Your task to perform on an android device: Go to wifi settings Image 0: 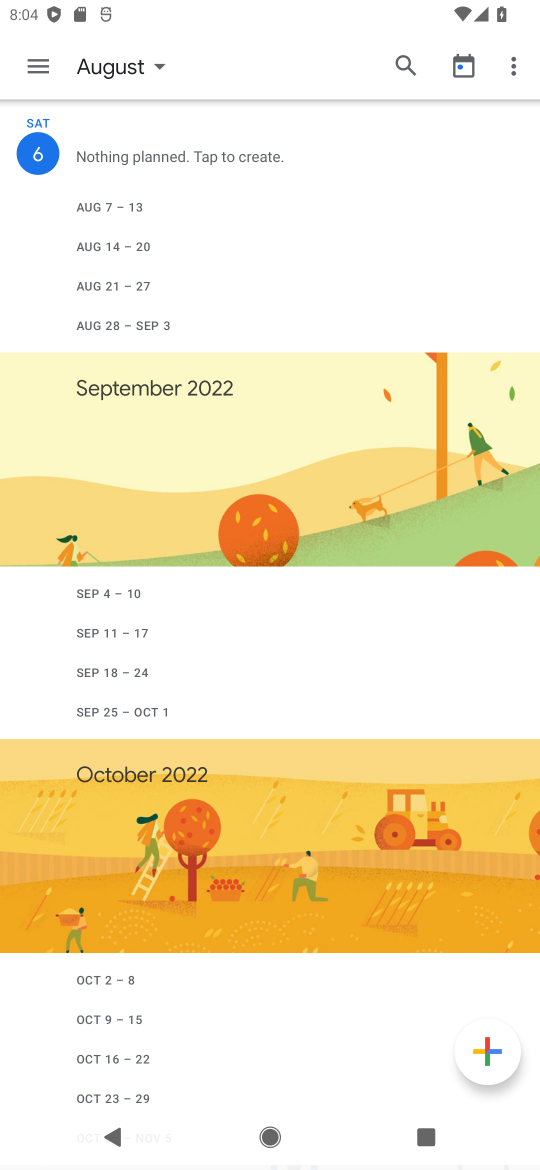
Step 0: press home button
Your task to perform on an android device: Go to wifi settings Image 1: 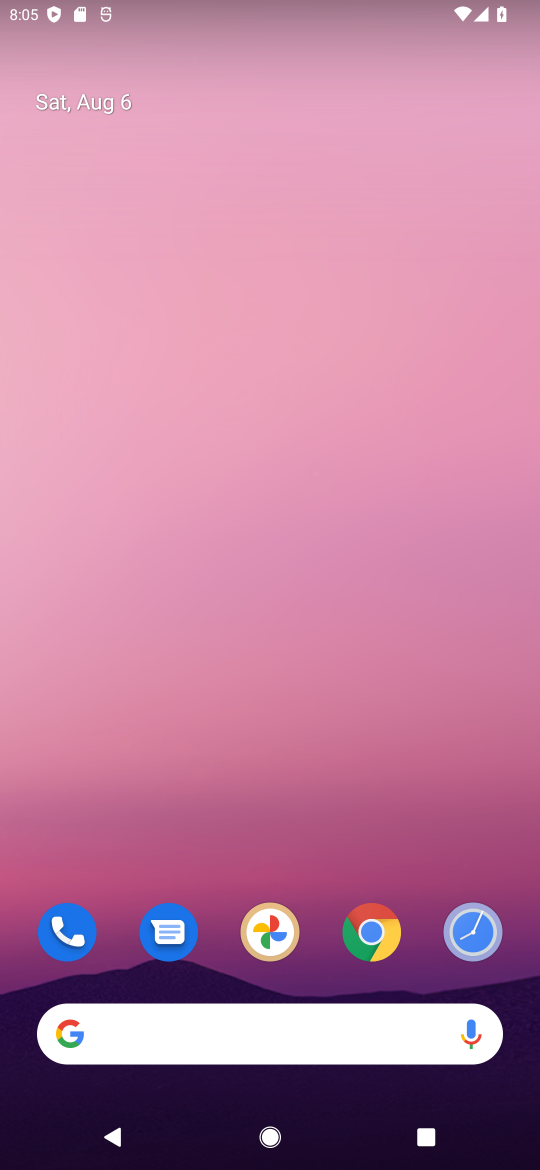
Step 1: drag from (292, 1037) to (463, 169)
Your task to perform on an android device: Go to wifi settings Image 2: 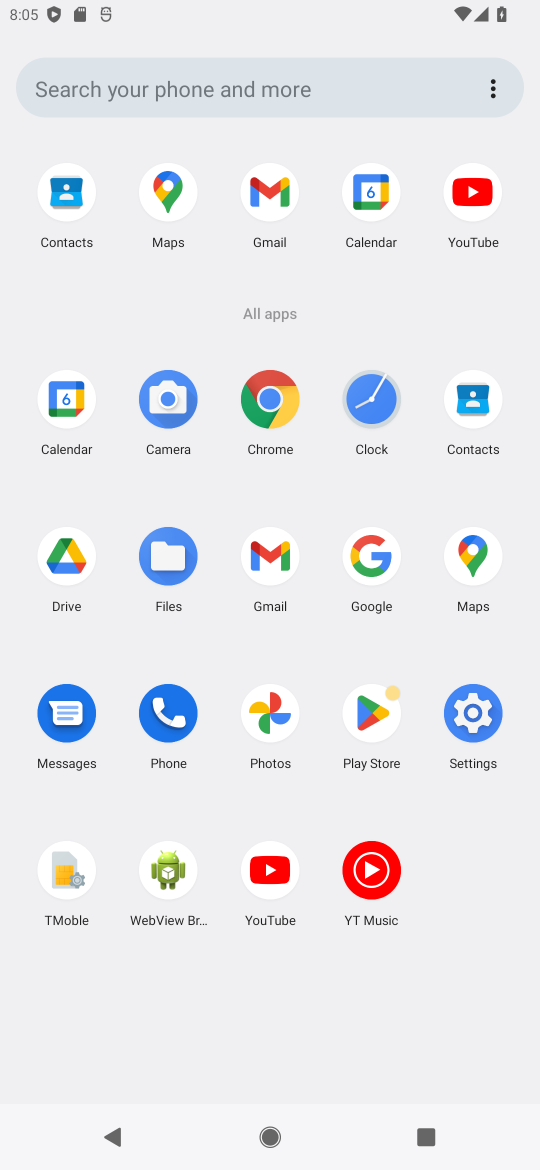
Step 2: click (474, 715)
Your task to perform on an android device: Go to wifi settings Image 3: 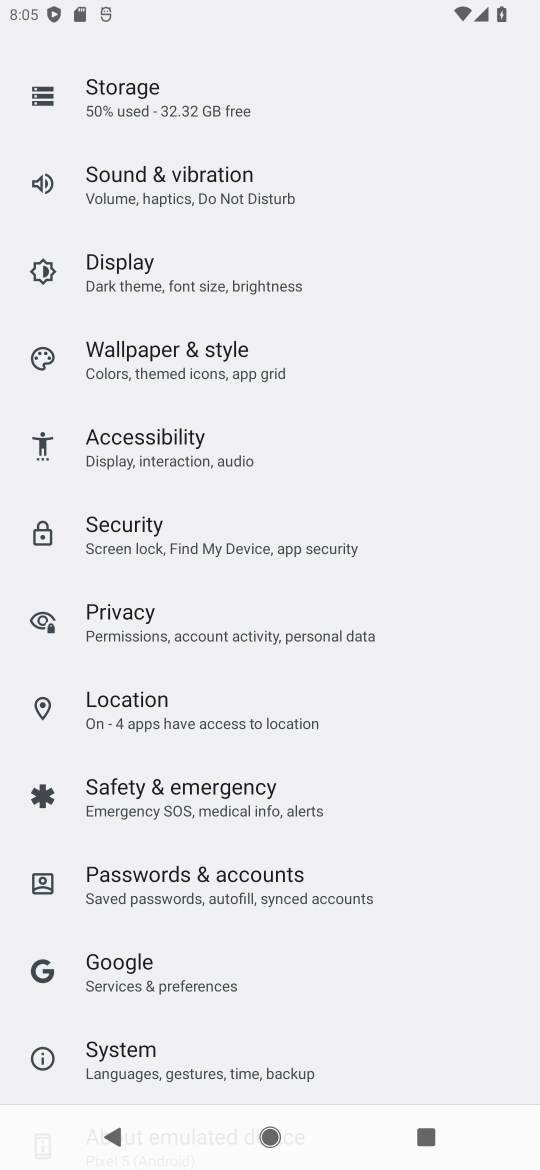
Step 3: drag from (363, 203) to (350, 863)
Your task to perform on an android device: Go to wifi settings Image 4: 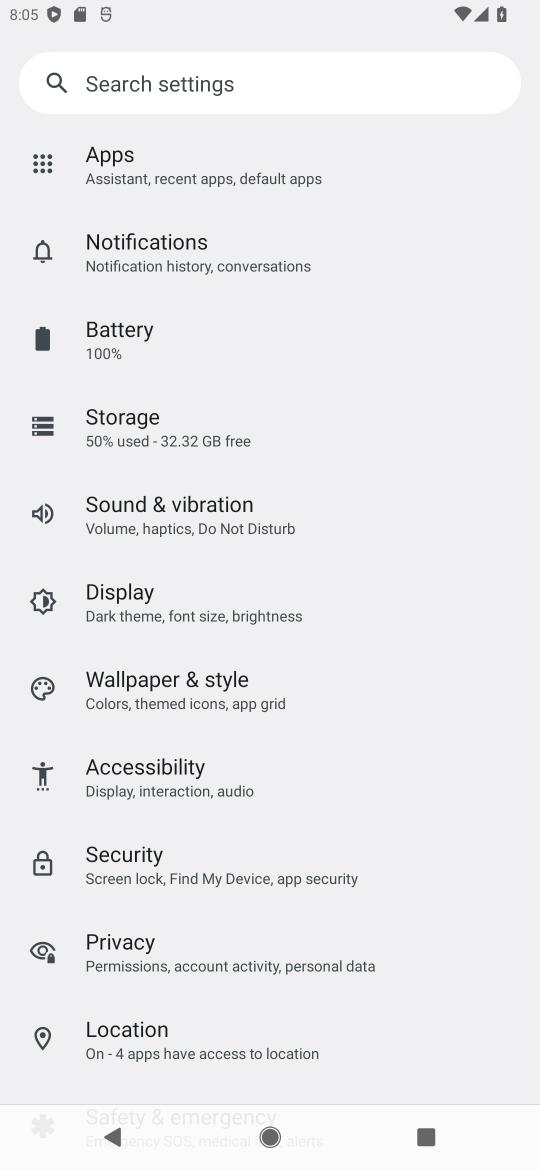
Step 4: drag from (409, 246) to (257, 857)
Your task to perform on an android device: Go to wifi settings Image 5: 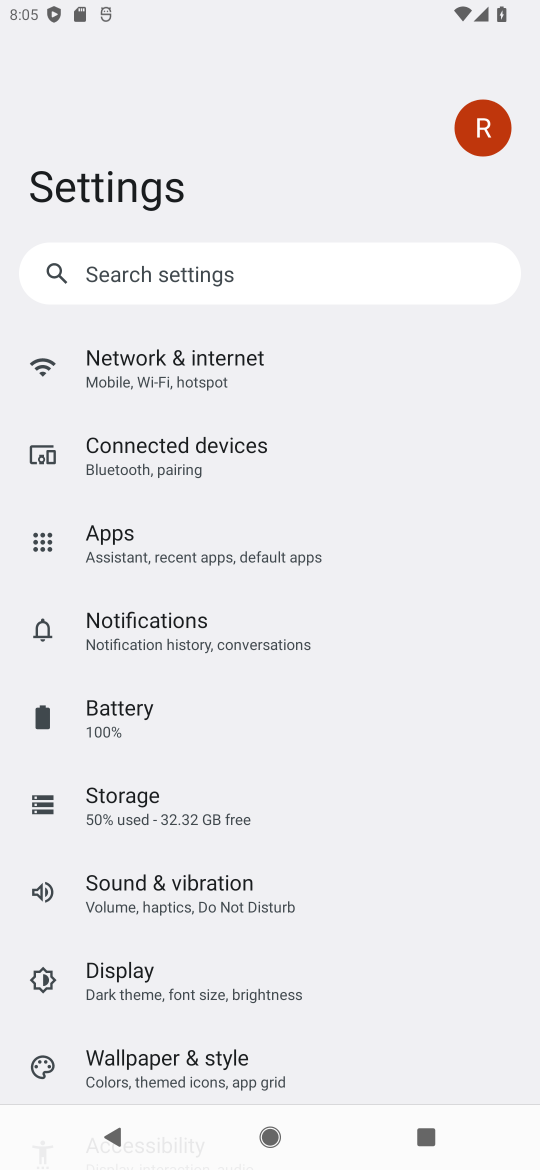
Step 5: click (227, 367)
Your task to perform on an android device: Go to wifi settings Image 6: 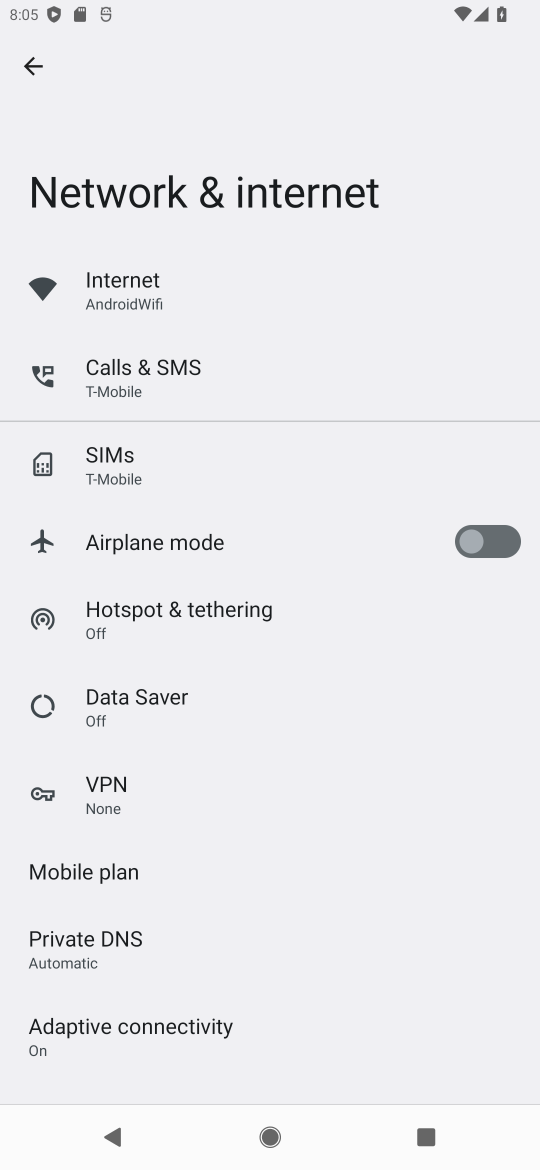
Step 6: click (131, 293)
Your task to perform on an android device: Go to wifi settings Image 7: 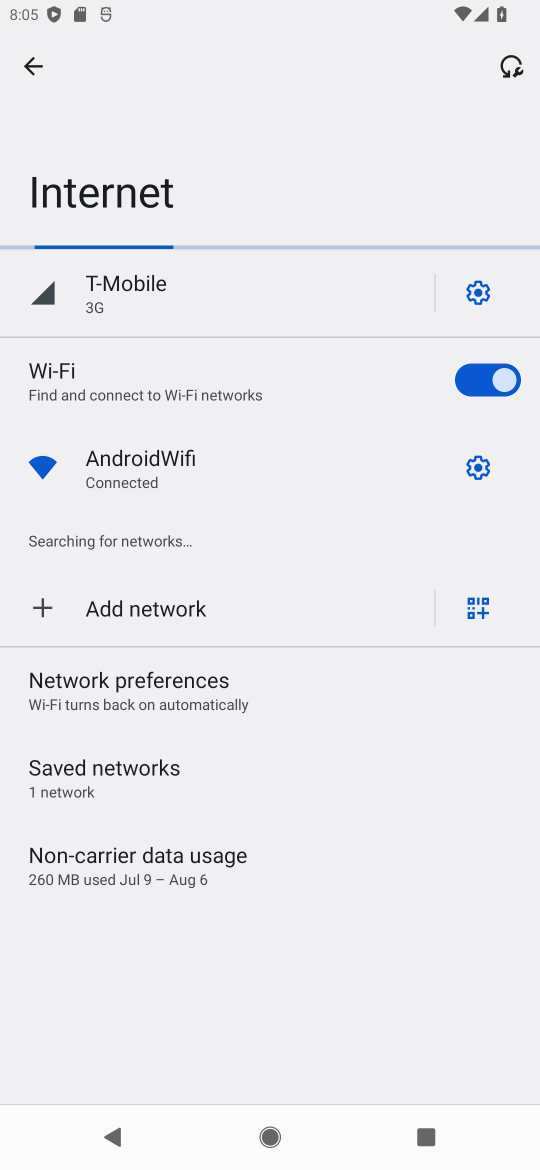
Step 7: click (481, 464)
Your task to perform on an android device: Go to wifi settings Image 8: 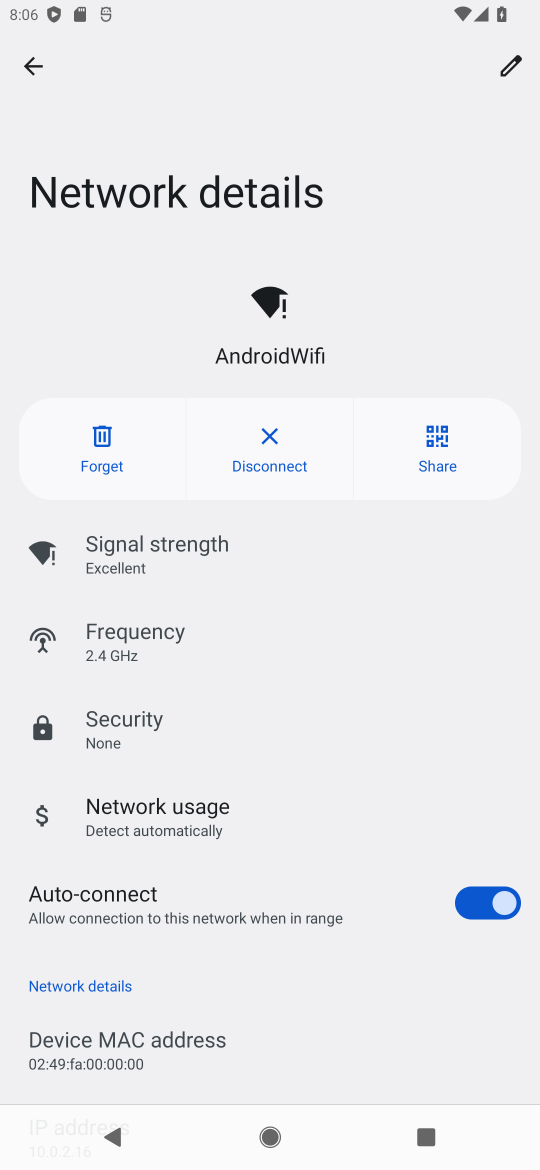
Step 8: task complete